Your task to perform on an android device: Go to wifi settings Image 0: 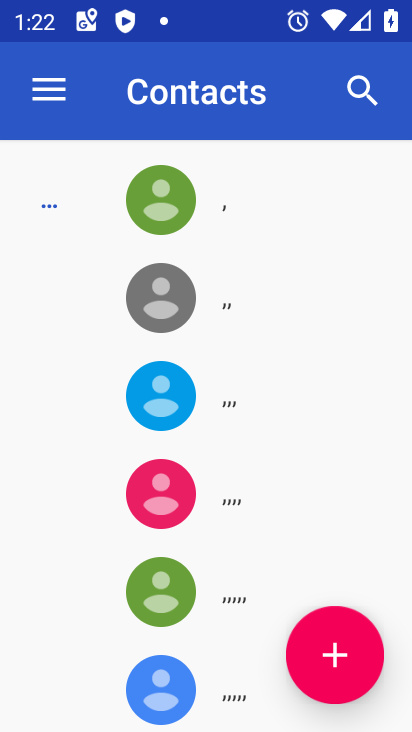
Step 0: press home button
Your task to perform on an android device: Go to wifi settings Image 1: 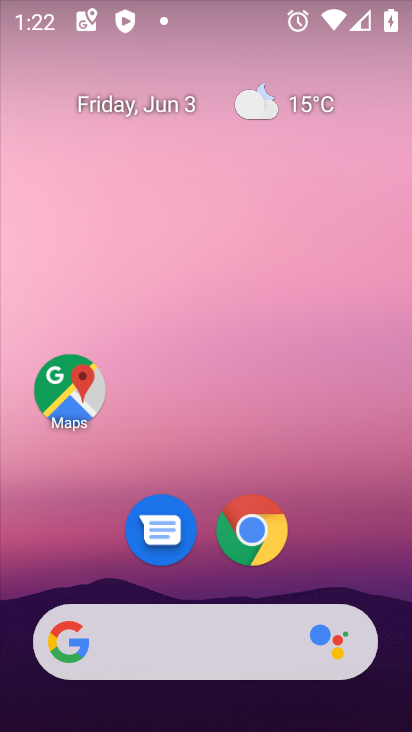
Step 1: drag from (367, 544) to (344, 100)
Your task to perform on an android device: Go to wifi settings Image 2: 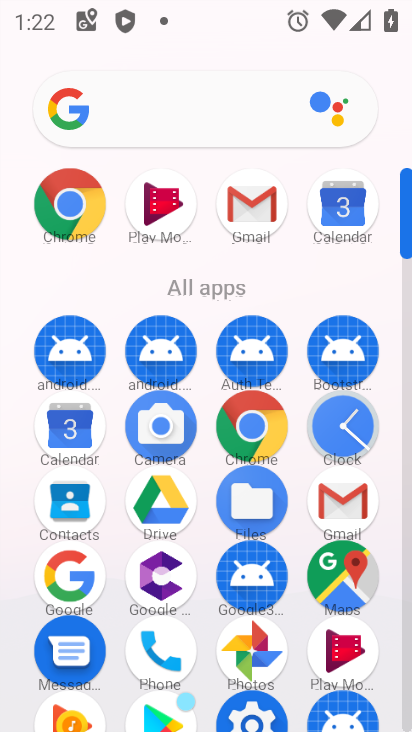
Step 2: click (262, 707)
Your task to perform on an android device: Go to wifi settings Image 3: 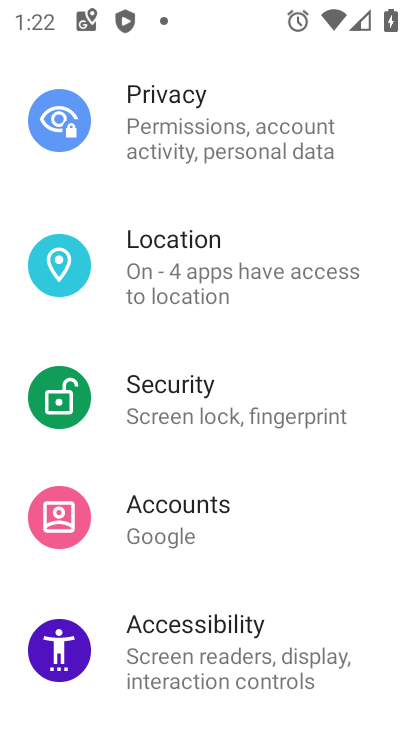
Step 3: drag from (381, 81) to (298, 713)
Your task to perform on an android device: Go to wifi settings Image 4: 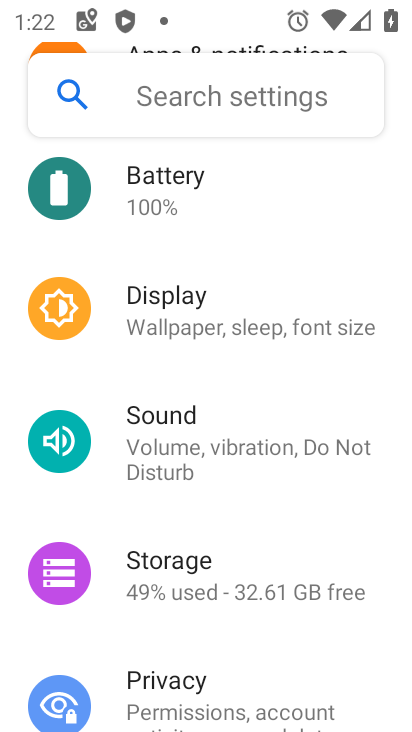
Step 4: drag from (389, 122) to (232, 715)
Your task to perform on an android device: Go to wifi settings Image 5: 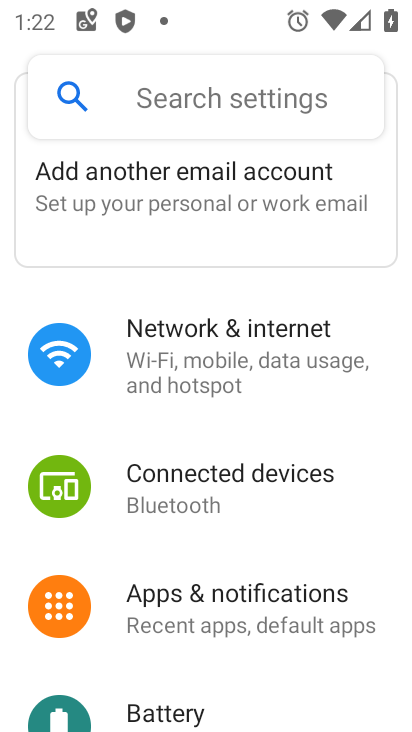
Step 5: click (154, 371)
Your task to perform on an android device: Go to wifi settings Image 6: 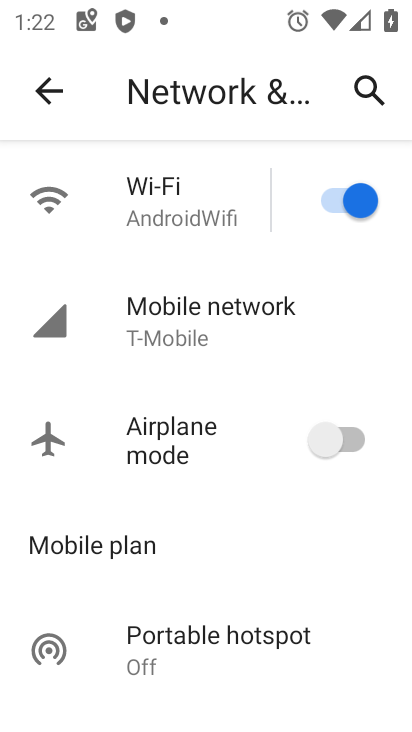
Step 6: click (140, 186)
Your task to perform on an android device: Go to wifi settings Image 7: 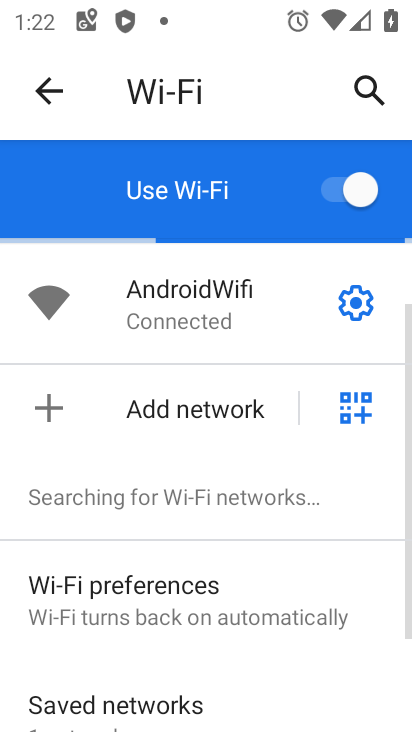
Step 7: click (367, 293)
Your task to perform on an android device: Go to wifi settings Image 8: 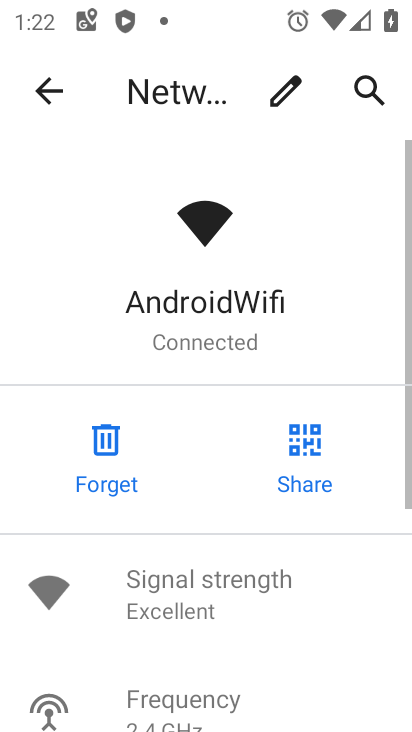
Step 8: task complete